Your task to perform on an android device: Open my contact list Image 0: 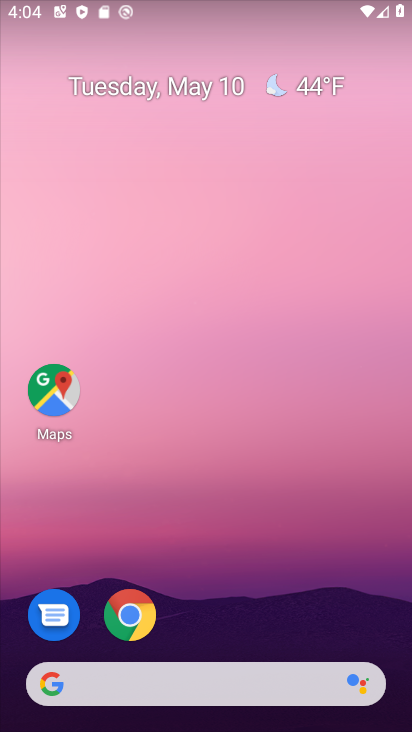
Step 0: drag from (184, 720) to (187, 558)
Your task to perform on an android device: Open my contact list Image 1: 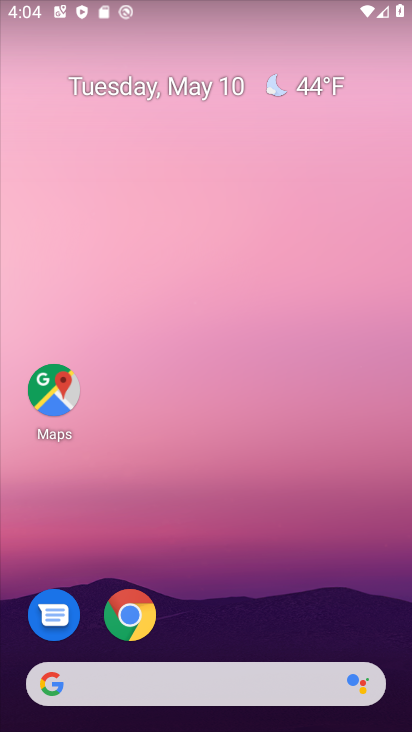
Step 1: drag from (214, 724) to (192, 69)
Your task to perform on an android device: Open my contact list Image 2: 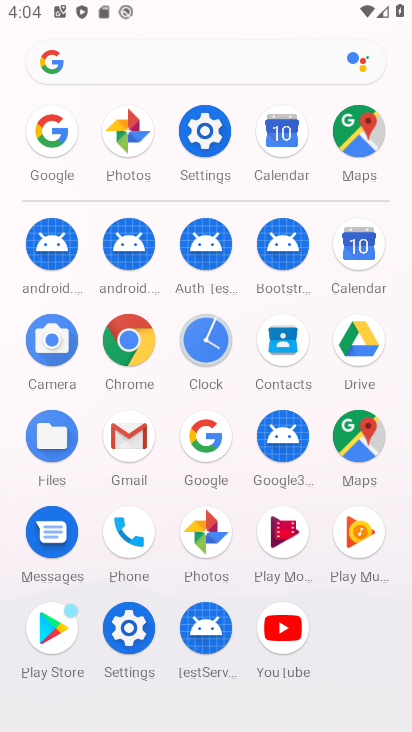
Step 2: click (283, 329)
Your task to perform on an android device: Open my contact list Image 3: 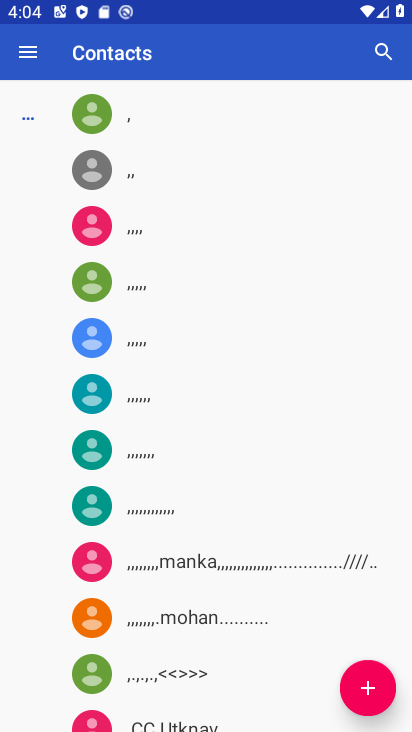
Step 3: task complete